Your task to perform on an android device: Go to network settings Image 0: 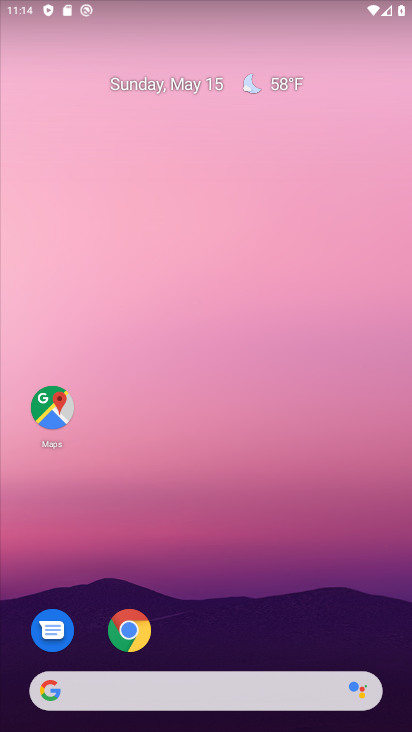
Step 0: drag from (307, 603) to (279, 166)
Your task to perform on an android device: Go to network settings Image 1: 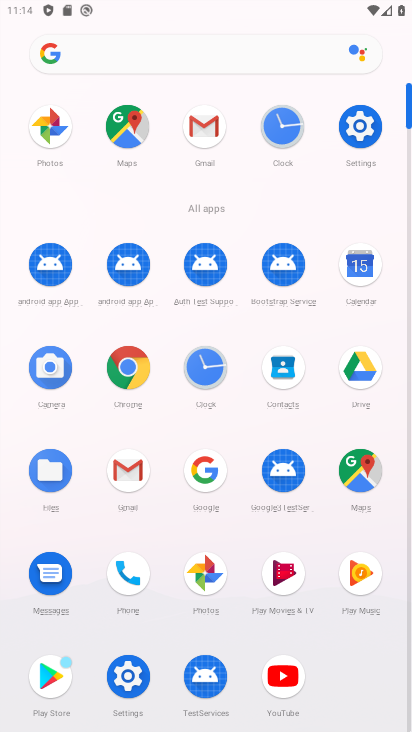
Step 1: click (353, 129)
Your task to perform on an android device: Go to network settings Image 2: 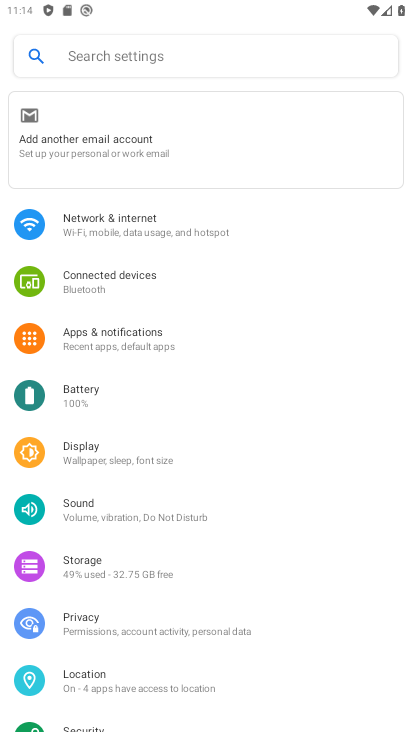
Step 2: drag from (110, 648) to (138, 392)
Your task to perform on an android device: Go to network settings Image 3: 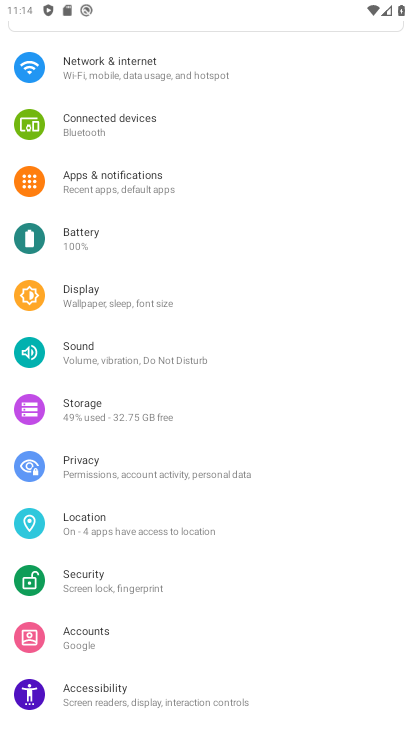
Step 3: drag from (216, 169) to (231, 369)
Your task to perform on an android device: Go to network settings Image 4: 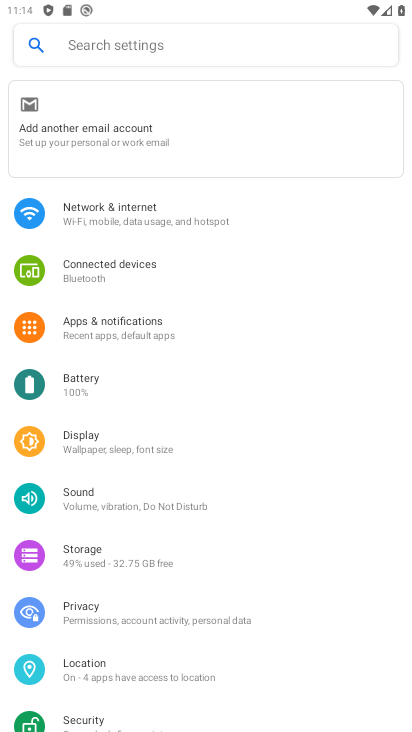
Step 4: click (200, 224)
Your task to perform on an android device: Go to network settings Image 5: 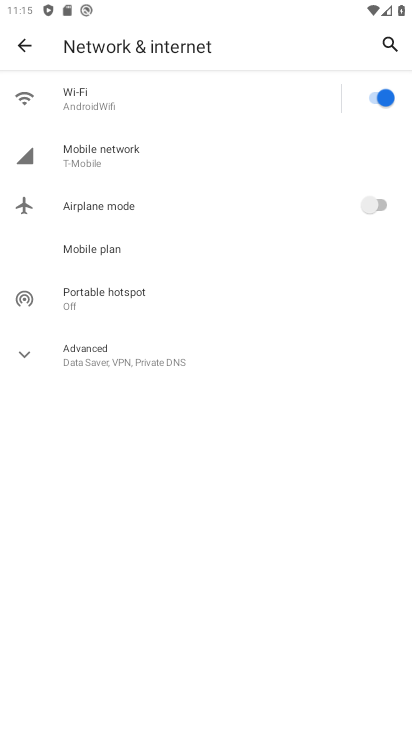
Step 5: task complete